Your task to perform on an android device: Go to Amazon Image 0: 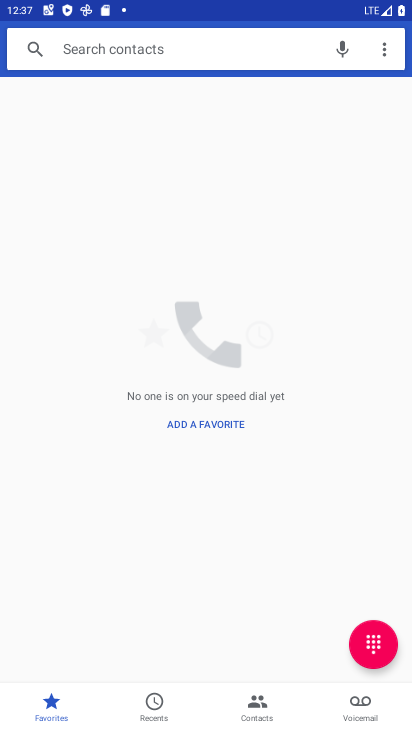
Step 0: press home button
Your task to perform on an android device: Go to Amazon Image 1: 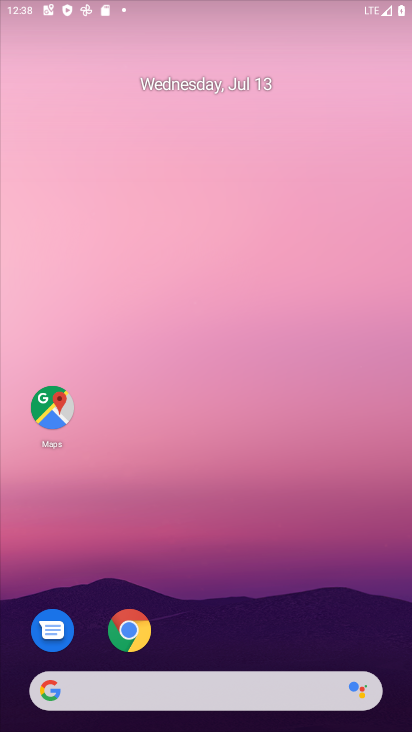
Step 1: drag from (401, 674) to (283, 51)
Your task to perform on an android device: Go to Amazon Image 2: 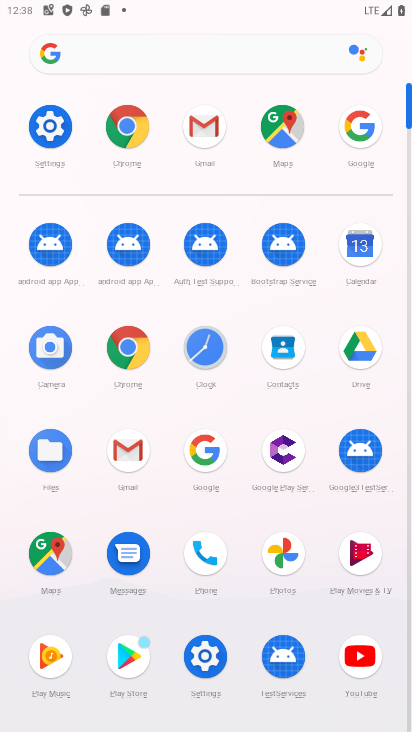
Step 2: click (214, 461)
Your task to perform on an android device: Go to Amazon Image 3: 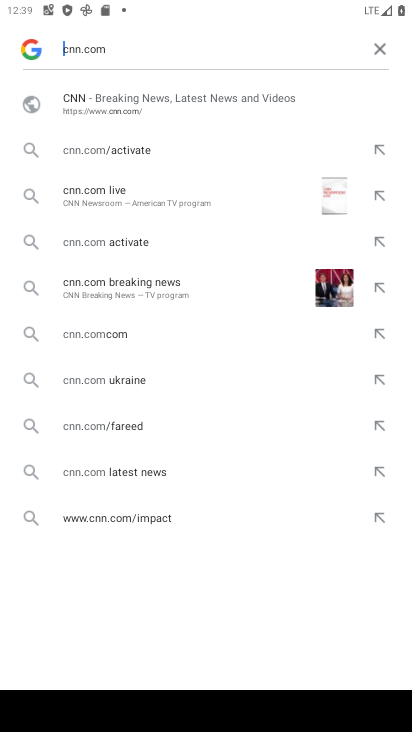
Step 3: click (379, 43)
Your task to perform on an android device: Go to Amazon Image 4: 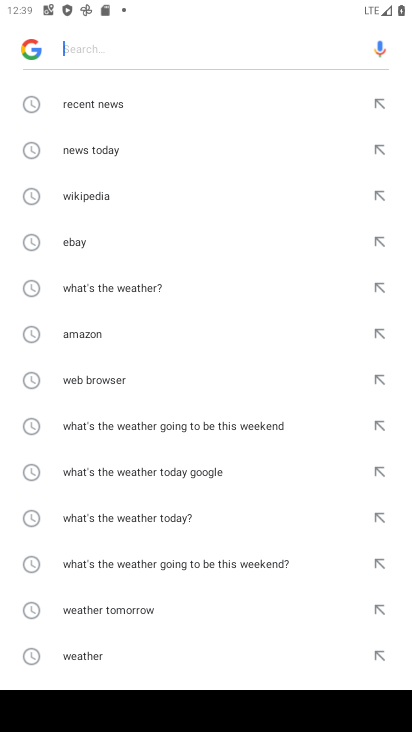
Step 4: click (72, 334)
Your task to perform on an android device: Go to Amazon Image 5: 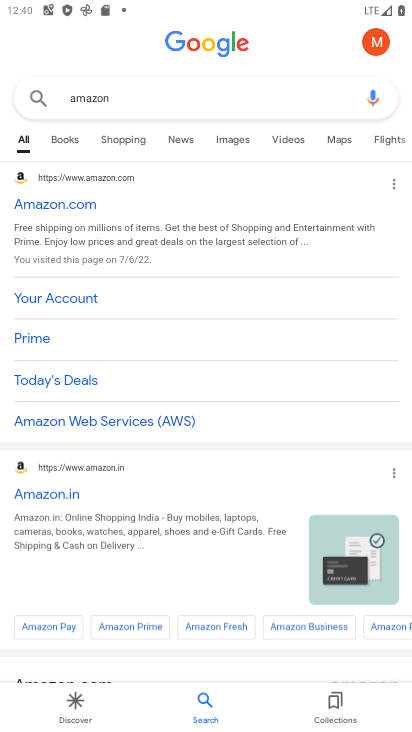
Step 5: task complete